Your task to perform on an android device: Search for "razer nari" on target.com, select the first entry, add it to the cart, then select checkout. Image 0: 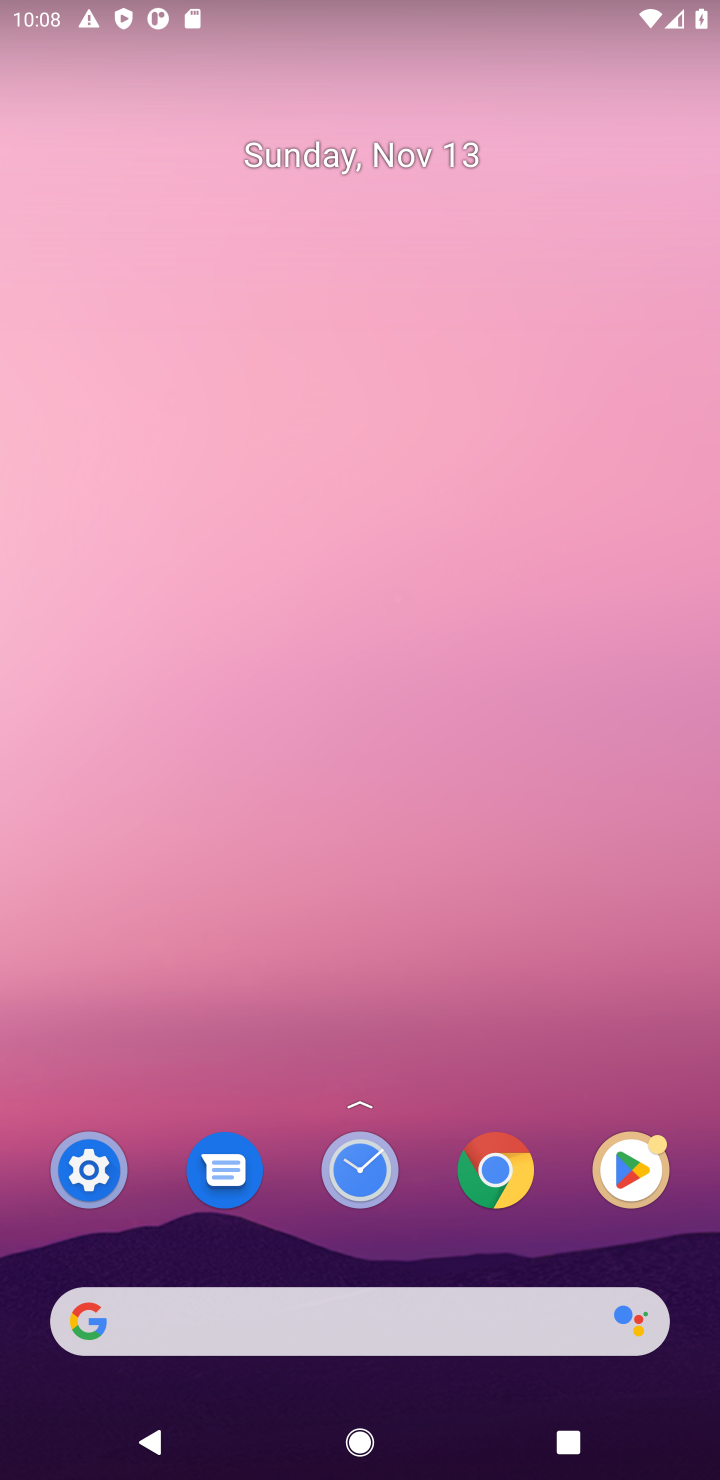
Step 0: click (430, 1339)
Your task to perform on an android device: Search for "razer nari" on target.com, select the first entry, add it to the cart, then select checkout. Image 1: 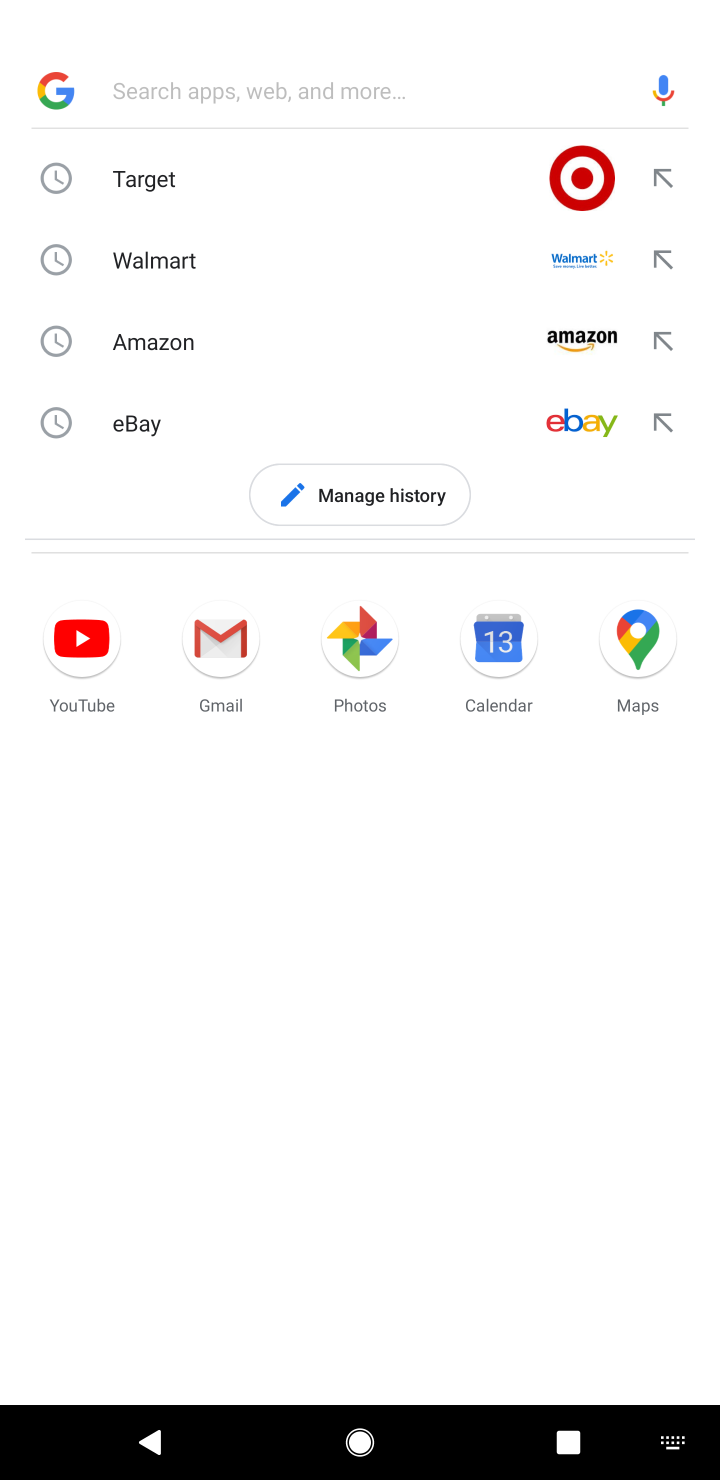
Step 1: click (150, 216)
Your task to perform on an android device: Search for "razer nari" on target.com, select the first entry, add it to the cart, then select checkout. Image 2: 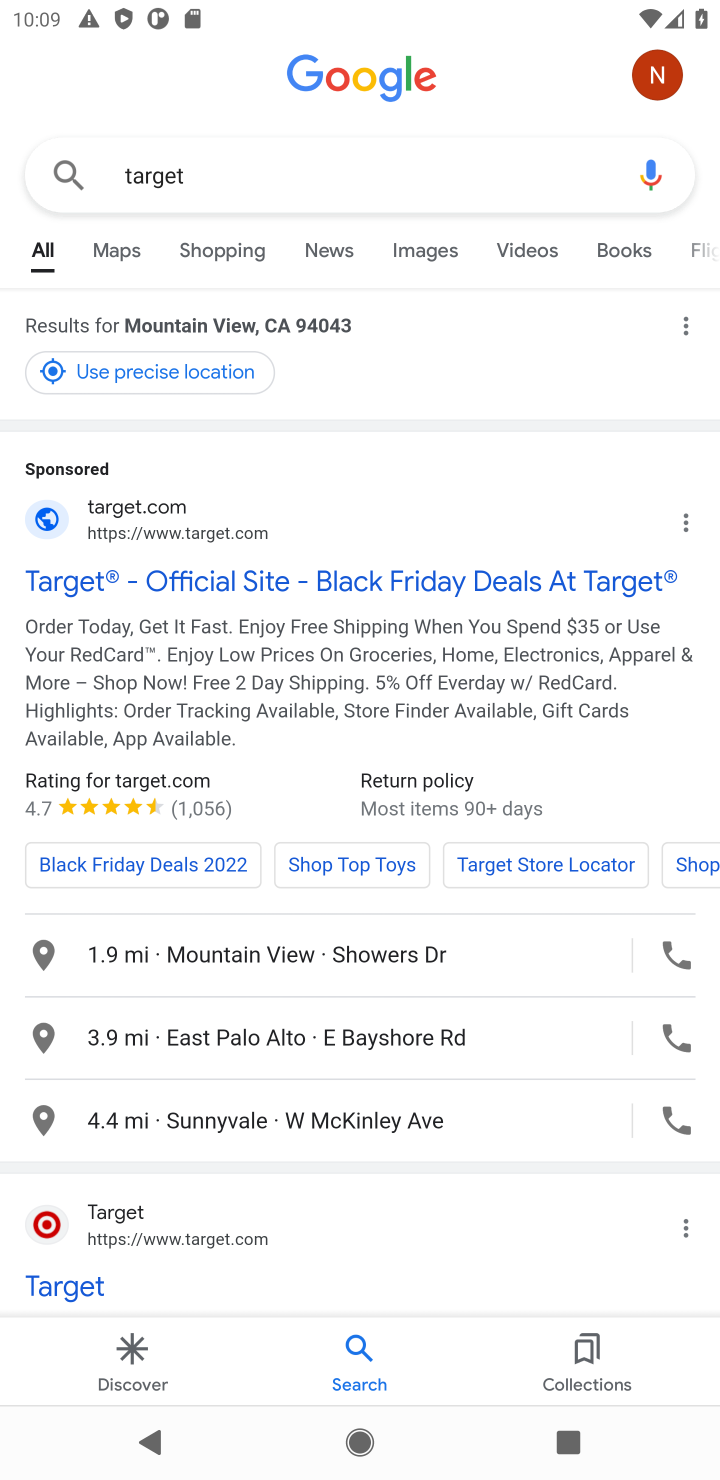
Step 2: click (105, 599)
Your task to perform on an android device: Search for "razer nari" on target.com, select the first entry, add it to the cart, then select checkout. Image 3: 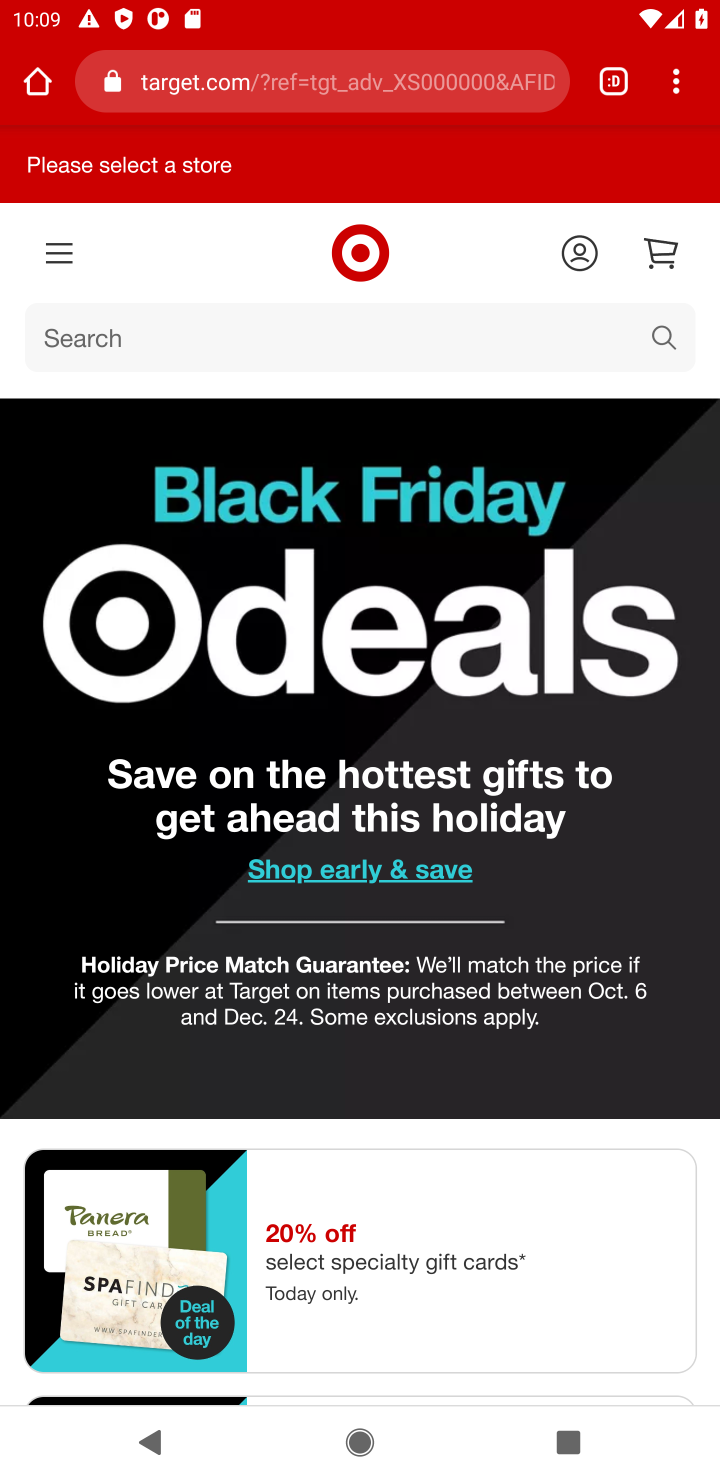
Step 3: click (202, 348)
Your task to perform on an android device: Search for "razer nari" on target.com, select the first entry, add it to the cart, then select checkout. Image 4: 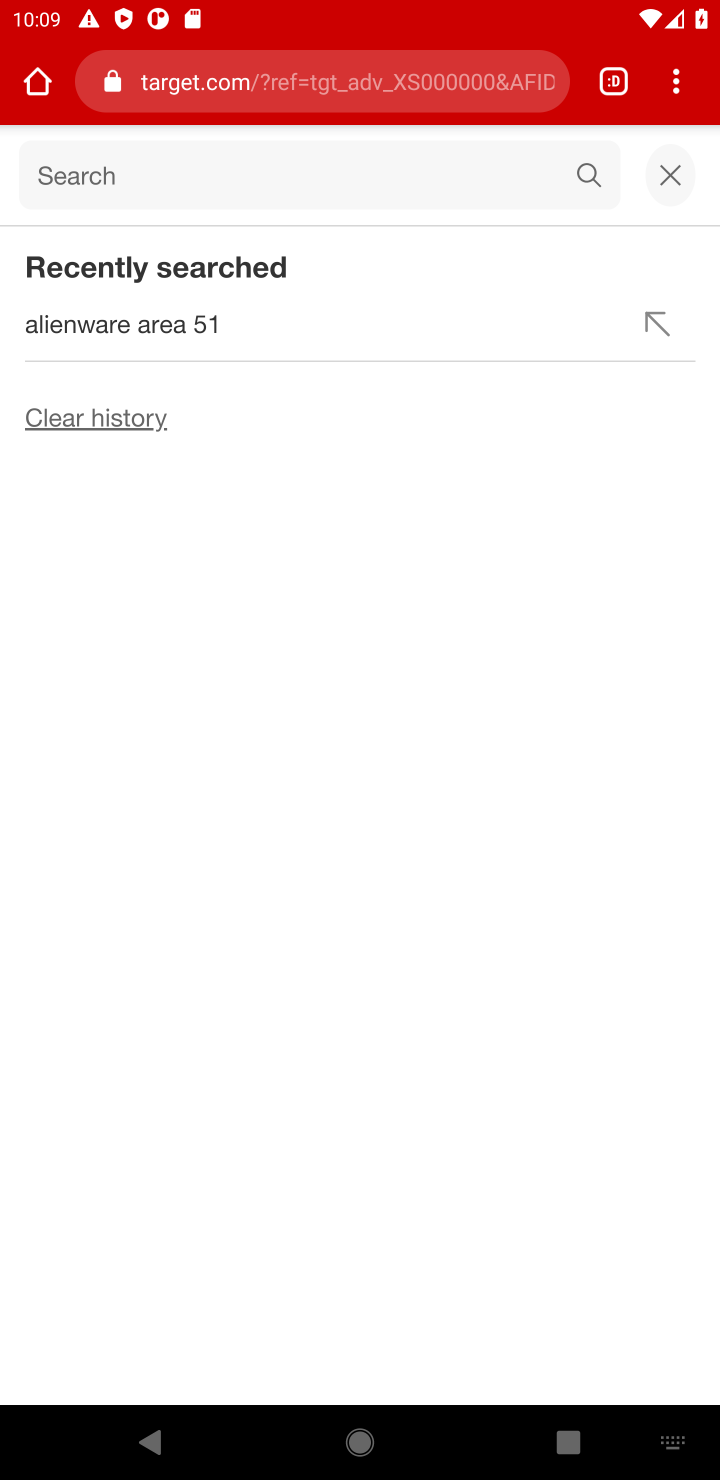
Step 4: task complete